Your task to perform on an android device: change alarm snooze length Image 0: 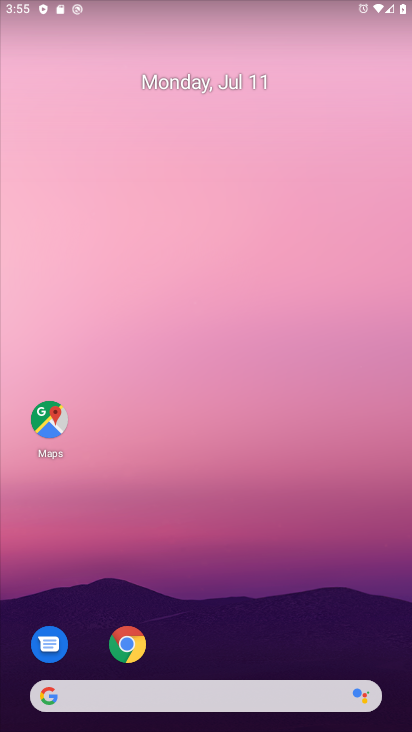
Step 0: drag from (232, 658) to (243, 375)
Your task to perform on an android device: change alarm snooze length Image 1: 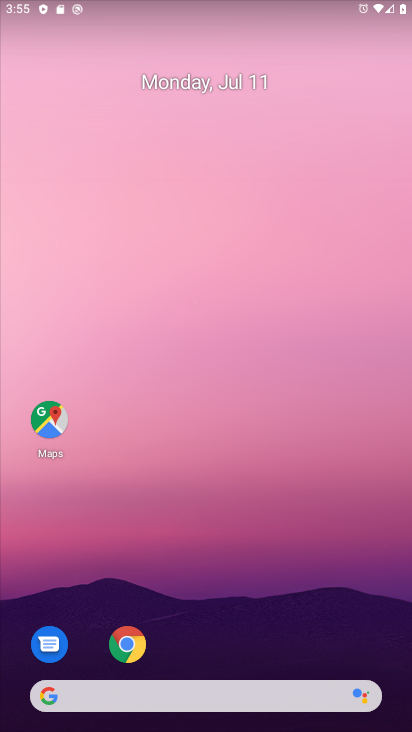
Step 1: drag from (244, 611) to (243, 334)
Your task to perform on an android device: change alarm snooze length Image 2: 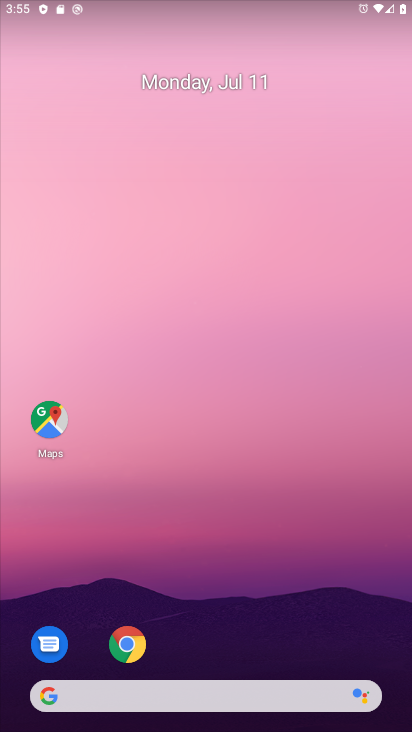
Step 2: drag from (226, 635) to (178, 51)
Your task to perform on an android device: change alarm snooze length Image 3: 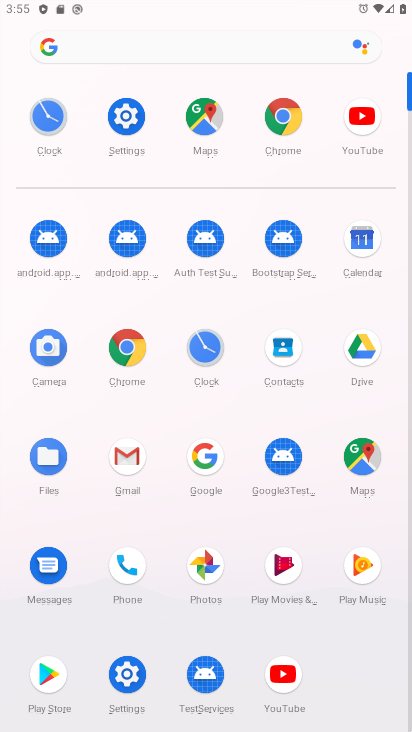
Step 3: click (52, 114)
Your task to perform on an android device: change alarm snooze length Image 4: 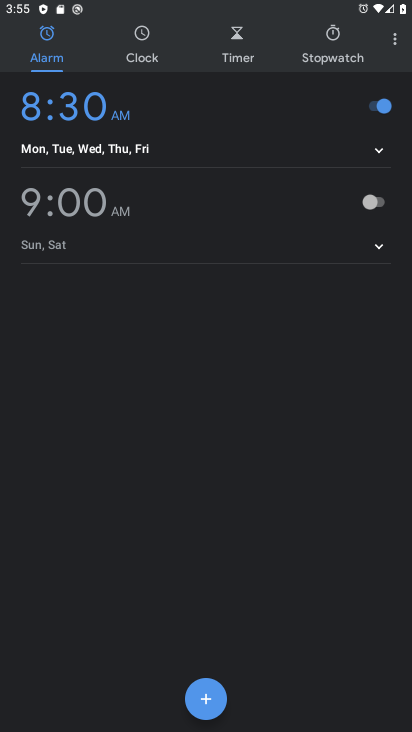
Step 4: click (398, 41)
Your task to perform on an android device: change alarm snooze length Image 5: 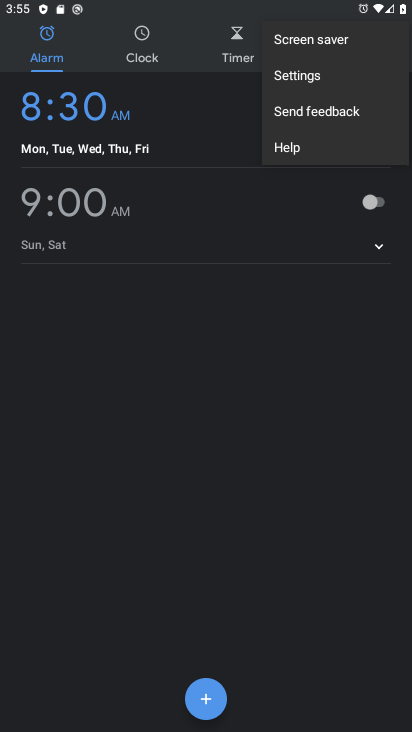
Step 5: click (319, 79)
Your task to perform on an android device: change alarm snooze length Image 6: 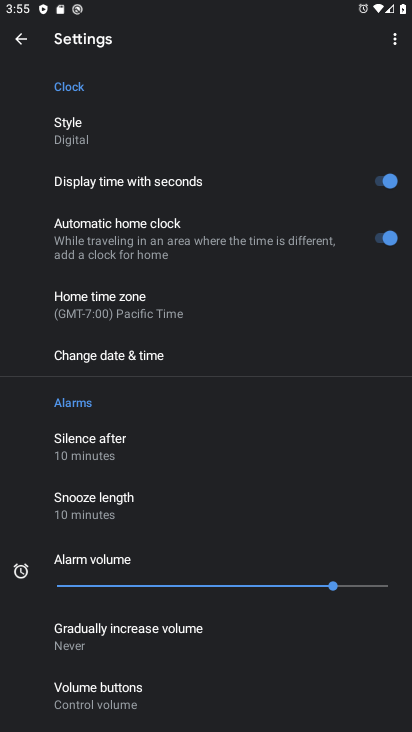
Step 6: click (134, 501)
Your task to perform on an android device: change alarm snooze length Image 7: 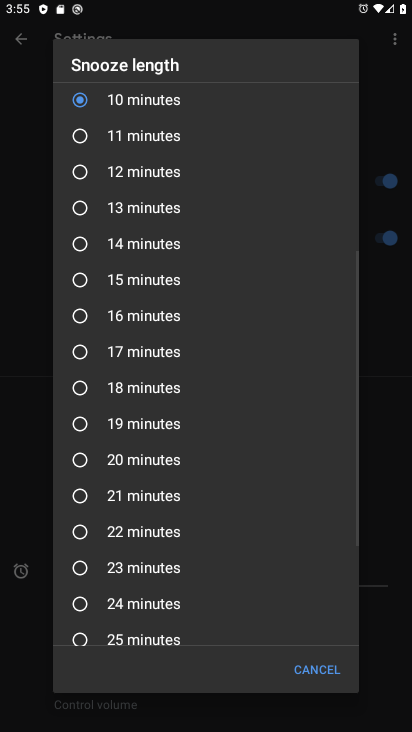
Step 7: click (134, 177)
Your task to perform on an android device: change alarm snooze length Image 8: 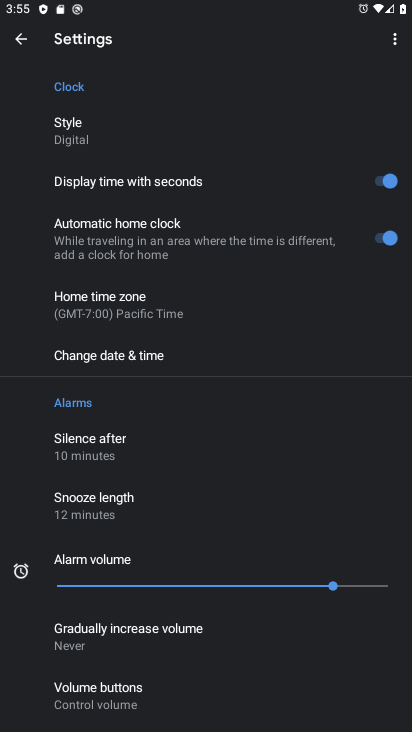
Step 8: task complete